Your task to perform on an android device: Open Android settings Image 0: 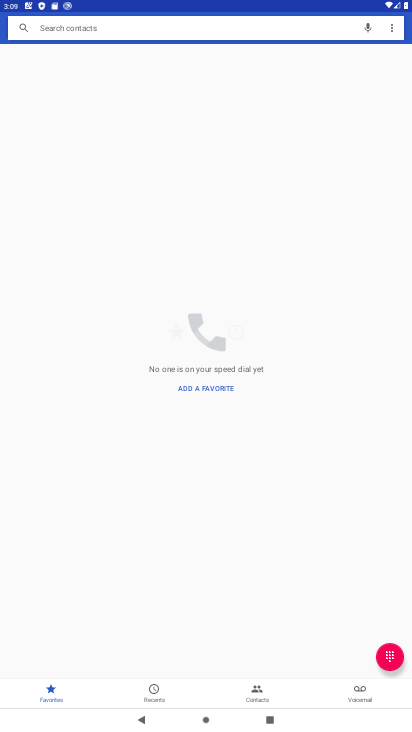
Step 0: press home button
Your task to perform on an android device: Open Android settings Image 1: 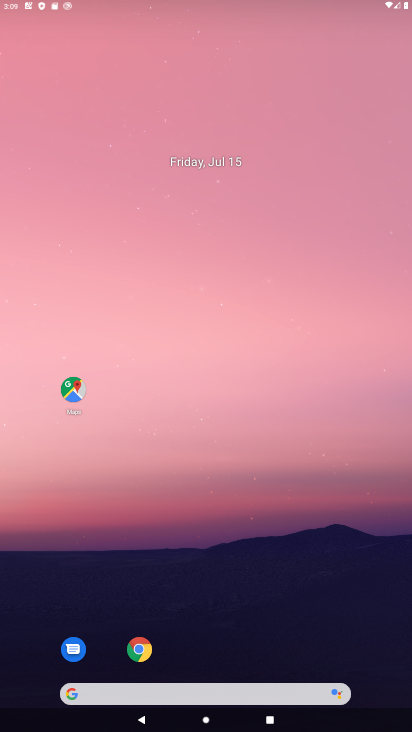
Step 1: drag from (305, 618) to (285, 150)
Your task to perform on an android device: Open Android settings Image 2: 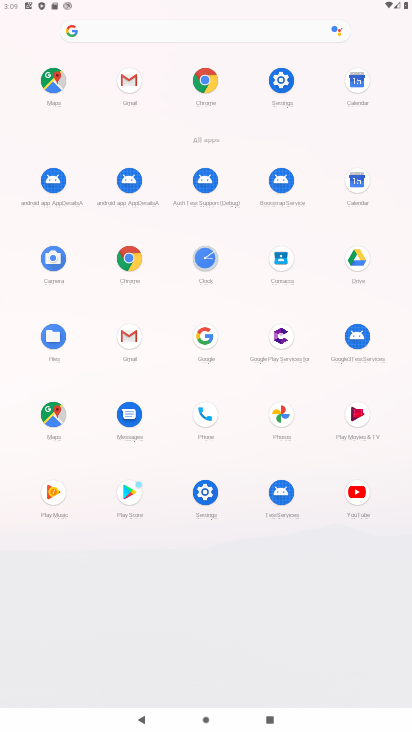
Step 2: click (279, 80)
Your task to perform on an android device: Open Android settings Image 3: 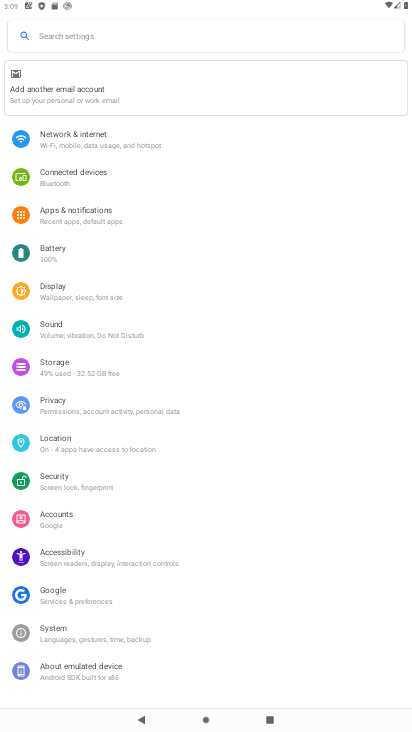
Step 3: task complete